Your task to perform on an android device: add a contact Image 0: 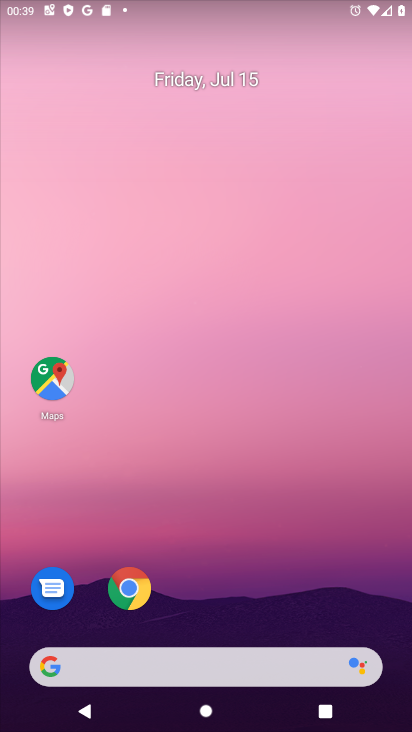
Step 0: press home button
Your task to perform on an android device: add a contact Image 1: 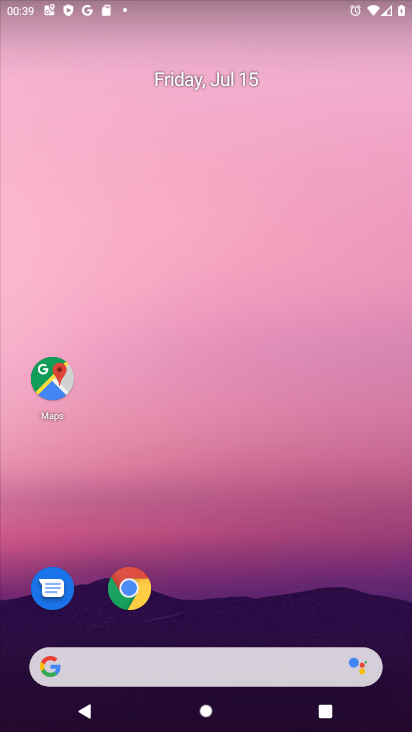
Step 1: drag from (187, 671) to (319, 55)
Your task to perform on an android device: add a contact Image 2: 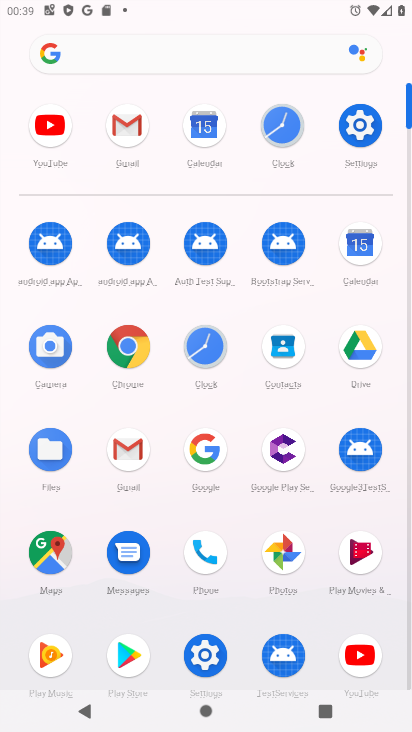
Step 2: click (291, 360)
Your task to perform on an android device: add a contact Image 3: 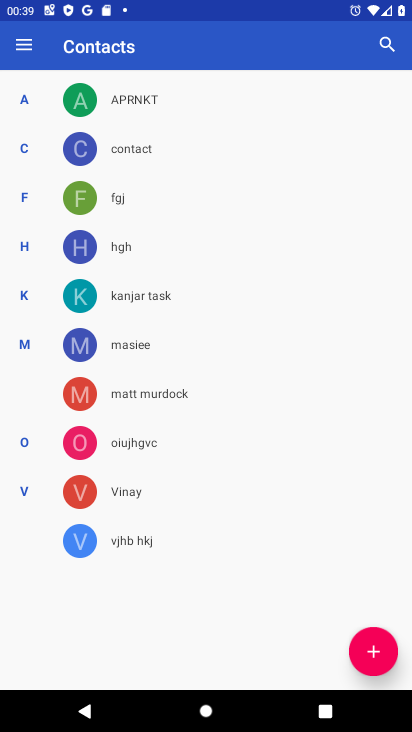
Step 3: click (379, 645)
Your task to perform on an android device: add a contact Image 4: 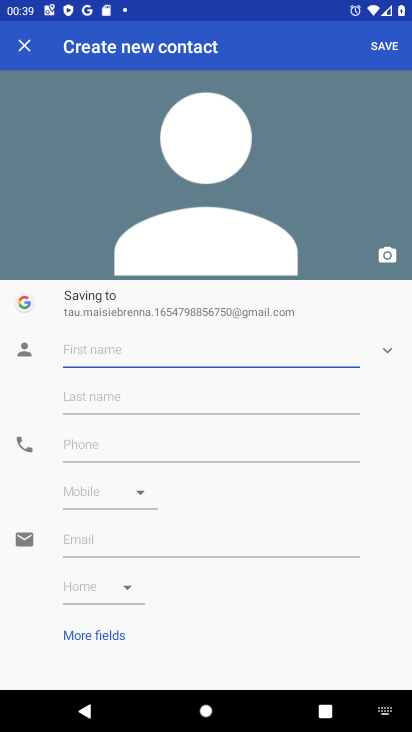
Step 4: click (110, 343)
Your task to perform on an android device: add a contact Image 5: 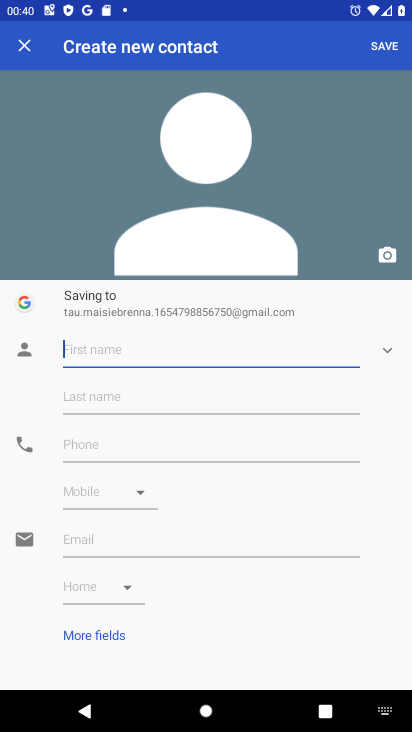
Step 5: type "mnjuuhkki"
Your task to perform on an android device: add a contact Image 6: 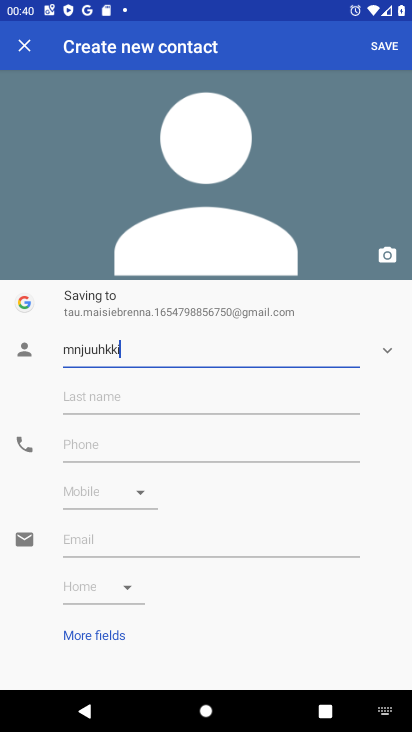
Step 6: click (86, 445)
Your task to perform on an android device: add a contact Image 7: 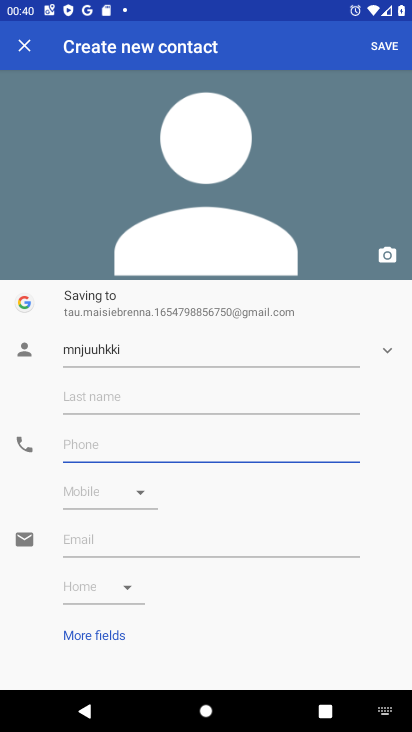
Step 7: type "54887766655"
Your task to perform on an android device: add a contact Image 8: 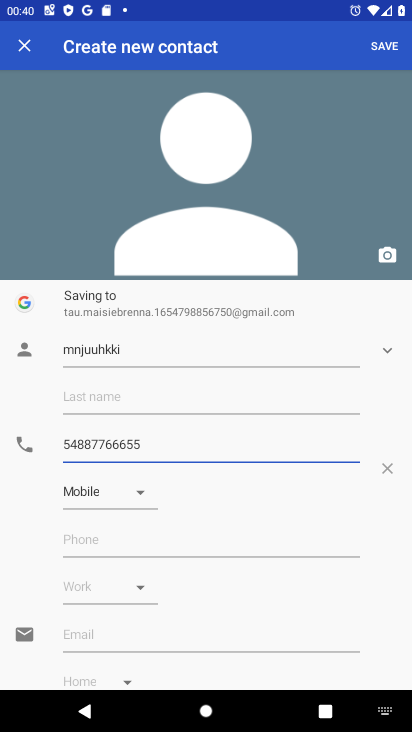
Step 8: click (388, 42)
Your task to perform on an android device: add a contact Image 9: 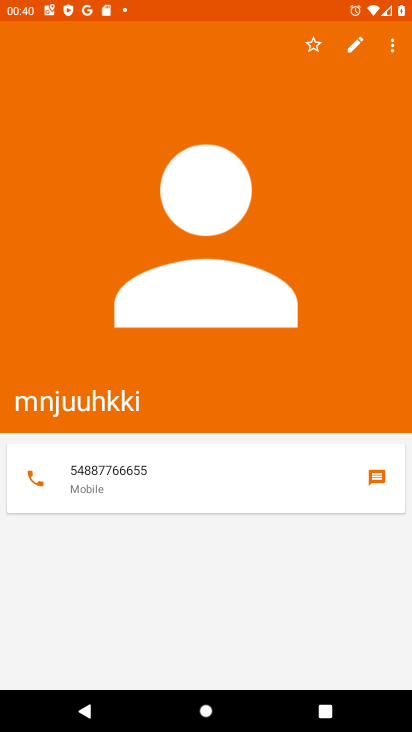
Step 9: task complete